Your task to perform on an android device: turn off notifications settings in the gmail app Image 0: 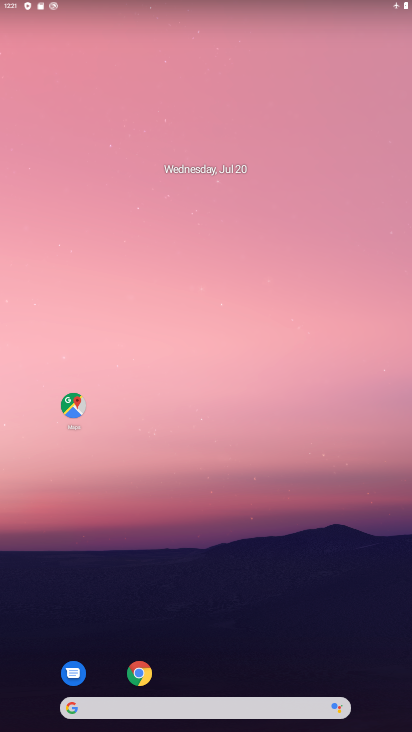
Step 0: drag from (338, 647) to (258, 195)
Your task to perform on an android device: turn off notifications settings in the gmail app Image 1: 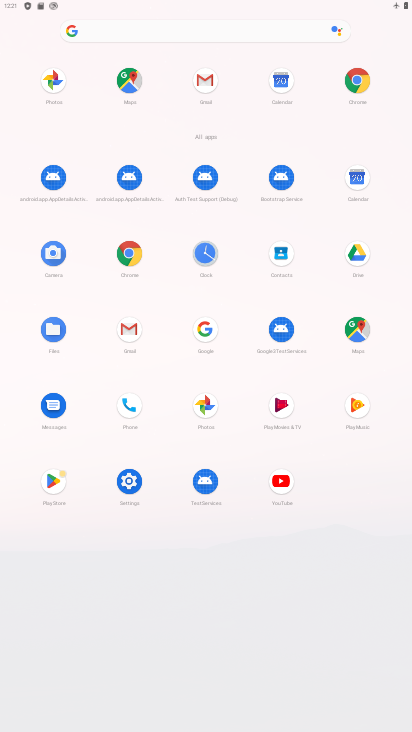
Step 1: click (197, 79)
Your task to perform on an android device: turn off notifications settings in the gmail app Image 2: 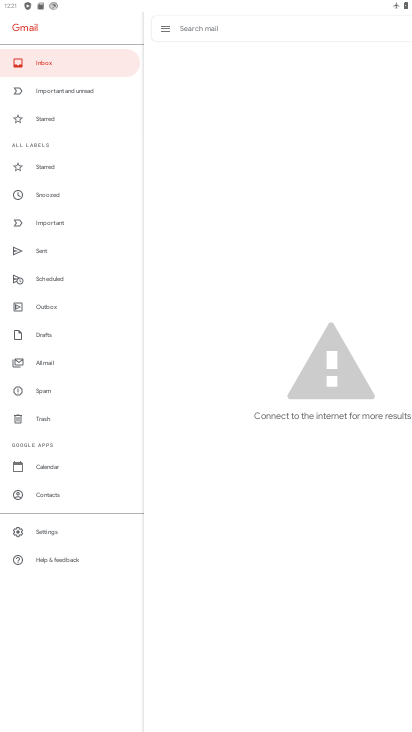
Step 2: click (56, 529)
Your task to perform on an android device: turn off notifications settings in the gmail app Image 3: 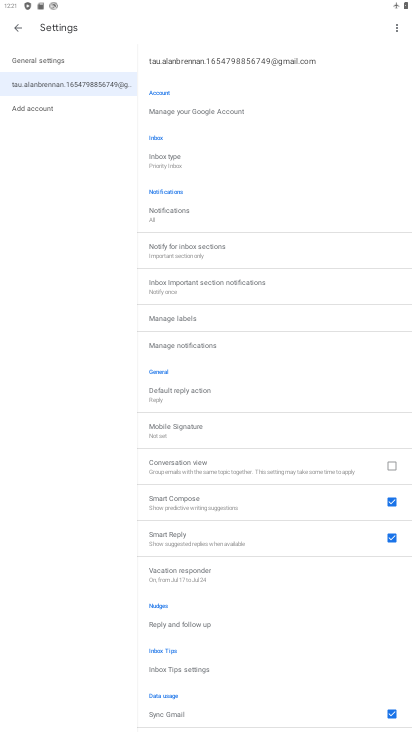
Step 3: click (217, 341)
Your task to perform on an android device: turn off notifications settings in the gmail app Image 4: 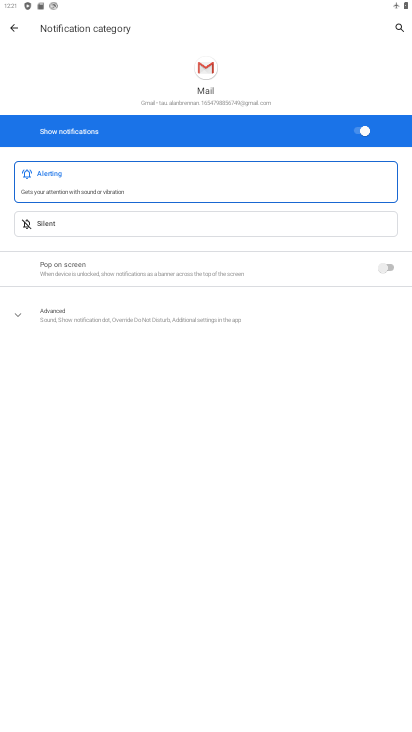
Step 4: task complete